Your task to perform on an android device: turn off airplane mode Image 0: 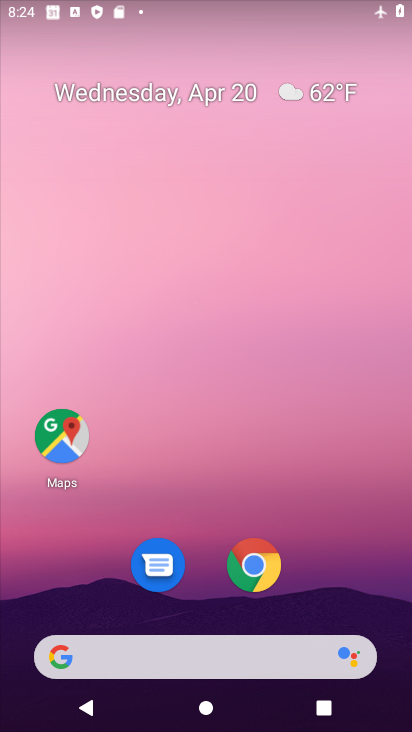
Step 0: drag from (325, 595) to (212, 142)
Your task to perform on an android device: turn off airplane mode Image 1: 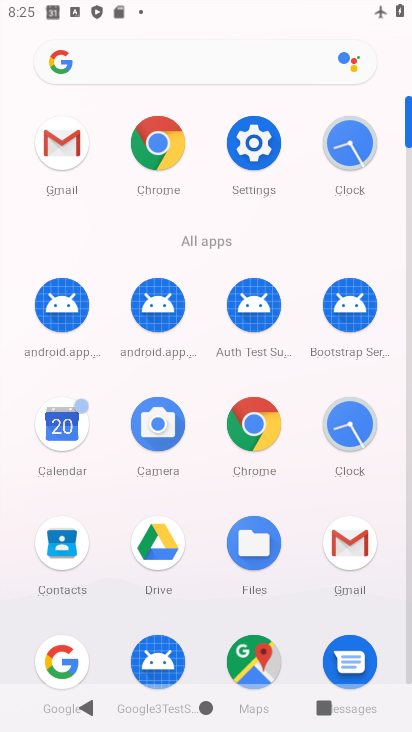
Step 1: click (243, 140)
Your task to perform on an android device: turn off airplane mode Image 2: 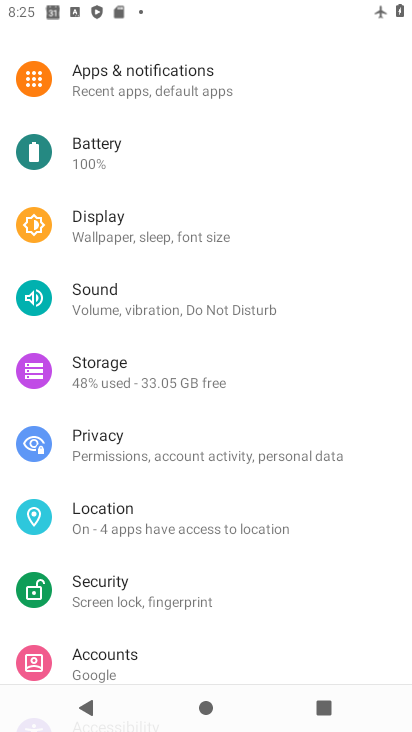
Step 2: drag from (218, 247) to (265, 454)
Your task to perform on an android device: turn off airplane mode Image 3: 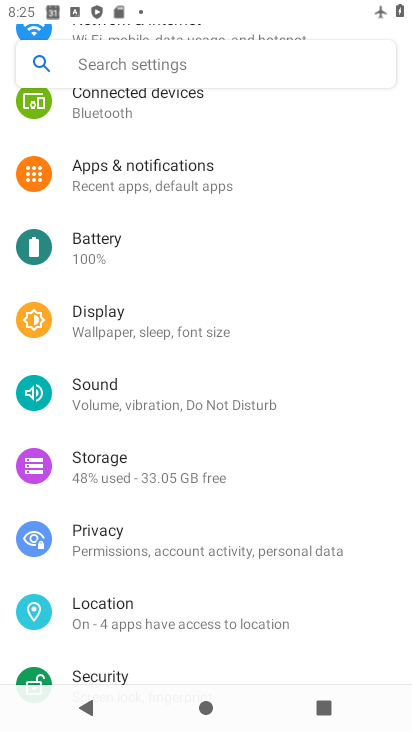
Step 3: drag from (231, 118) to (217, 460)
Your task to perform on an android device: turn off airplane mode Image 4: 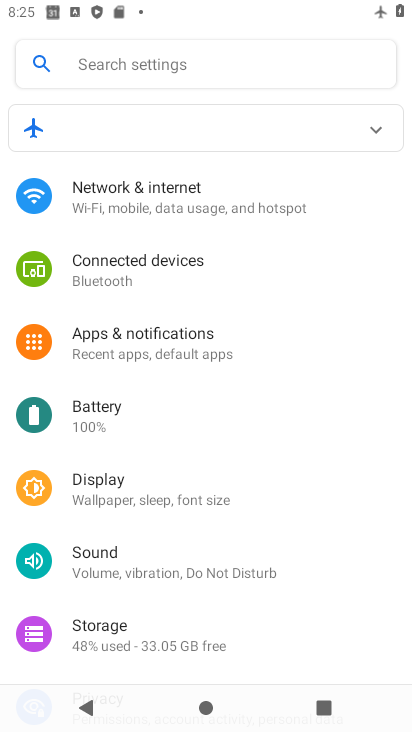
Step 4: click (150, 177)
Your task to perform on an android device: turn off airplane mode Image 5: 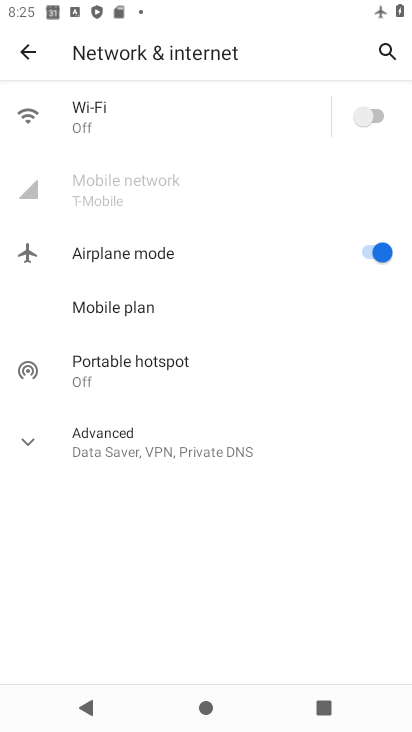
Step 5: click (371, 261)
Your task to perform on an android device: turn off airplane mode Image 6: 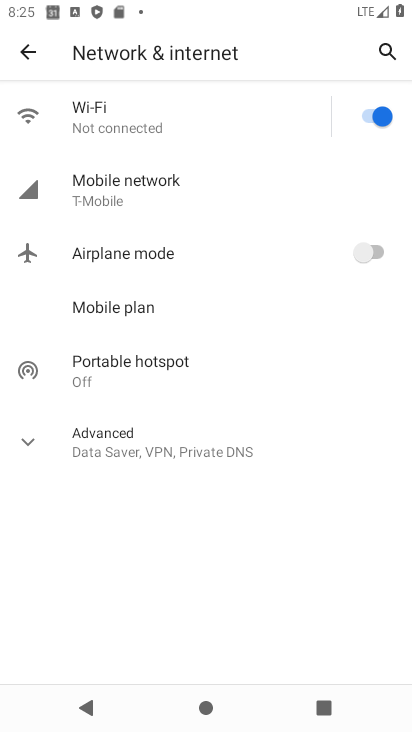
Step 6: task complete